Your task to perform on an android device: show emergency info Image 0: 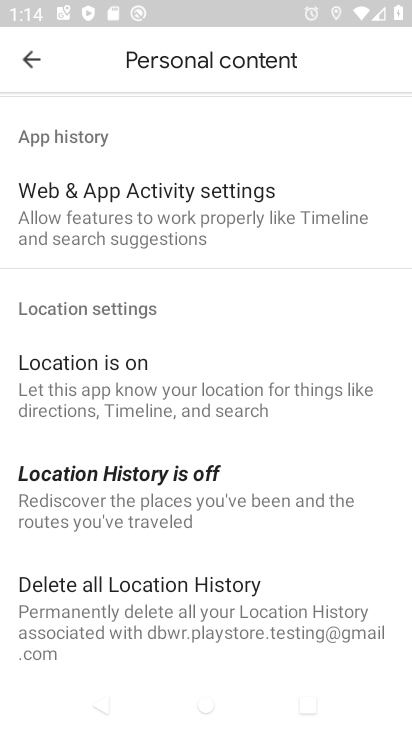
Step 0: press home button
Your task to perform on an android device: show emergency info Image 1: 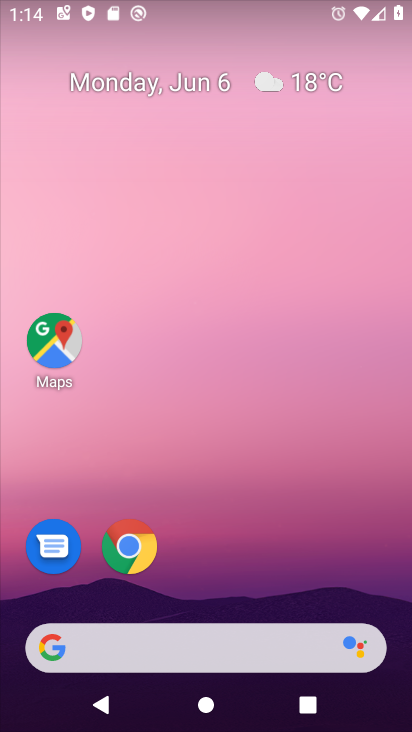
Step 1: click (338, 77)
Your task to perform on an android device: show emergency info Image 2: 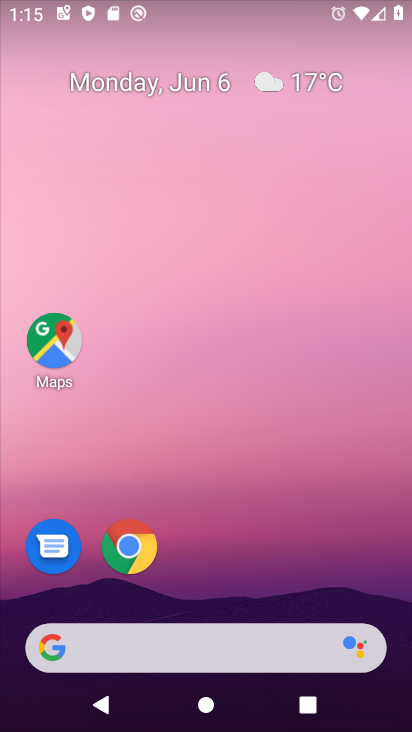
Step 2: drag from (308, 534) to (252, 148)
Your task to perform on an android device: show emergency info Image 3: 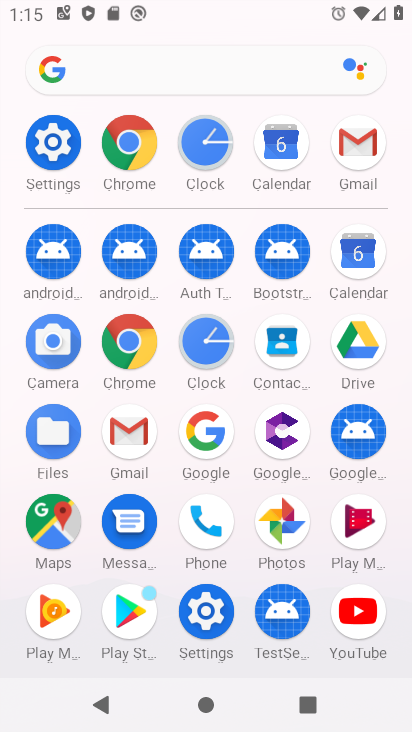
Step 3: click (41, 153)
Your task to perform on an android device: show emergency info Image 4: 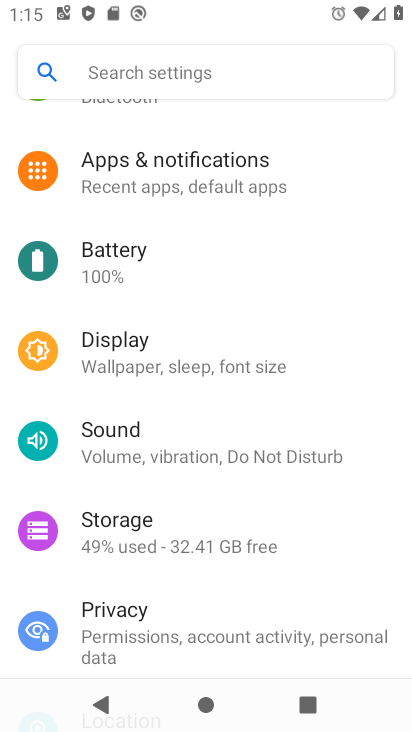
Step 4: drag from (177, 586) to (230, 152)
Your task to perform on an android device: show emergency info Image 5: 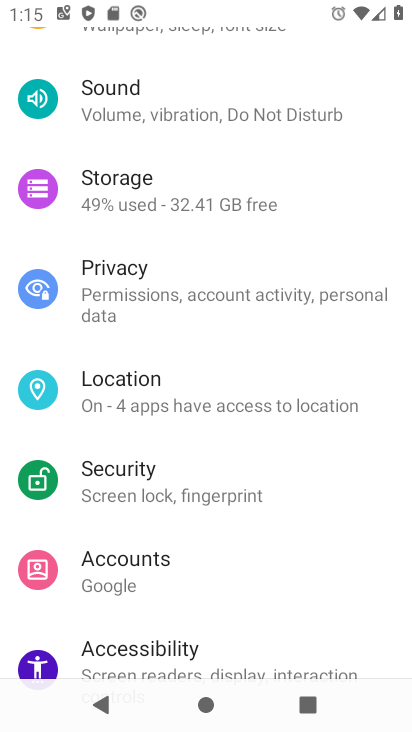
Step 5: drag from (210, 622) to (252, 206)
Your task to perform on an android device: show emergency info Image 6: 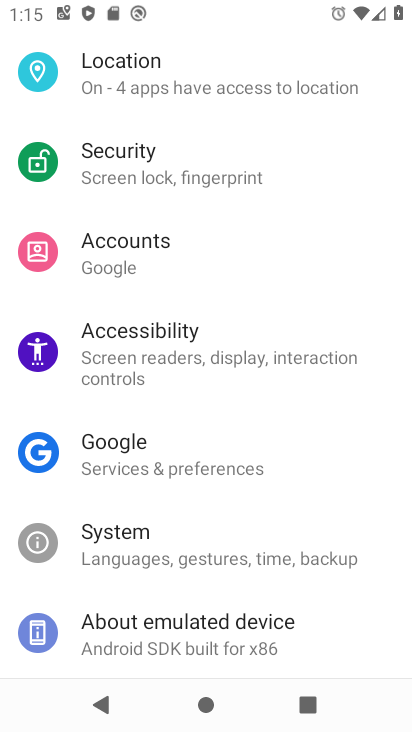
Step 6: click (205, 646)
Your task to perform on an android device: show emergency info Image 7: 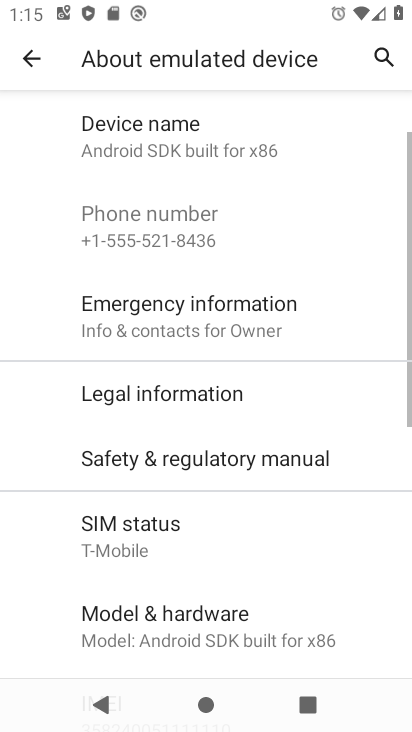
Step 7: click (195, 322)
Your task to perform on an android device: show emergency info Image 8: 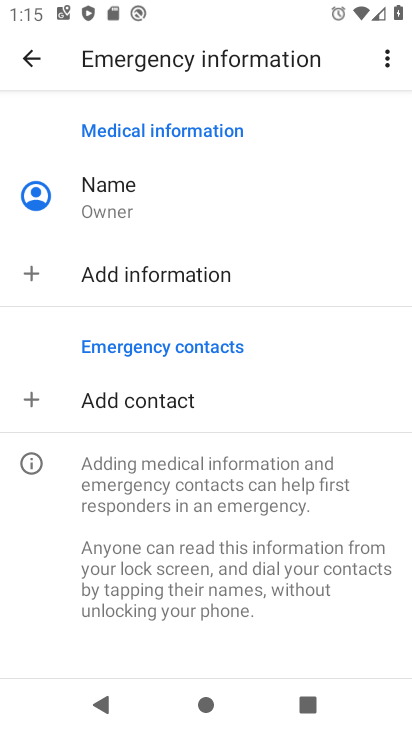
Step 8: drag from (90, 614) to (206, 133)
Your task to perform on an android device: show emergency info Image 9: 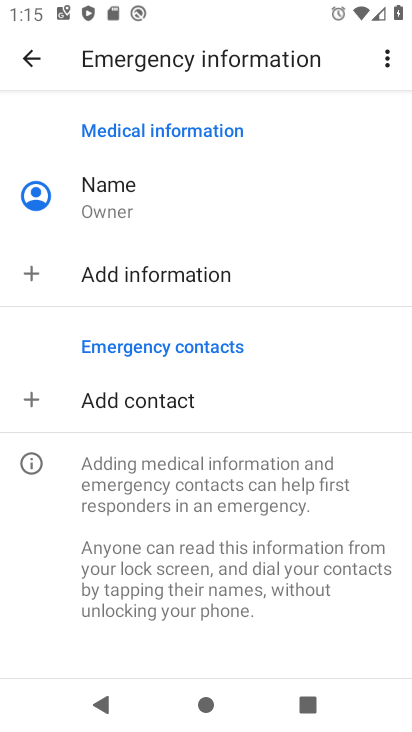
Step 9: click (388, 61)
Your task to perform on an android device: show emergency info Image 10: 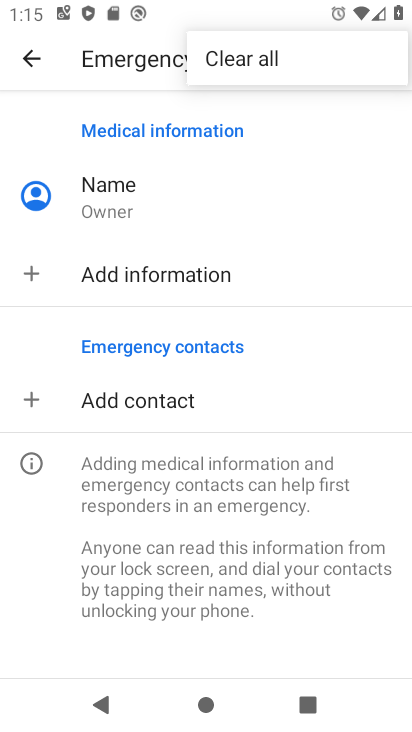
Step 10: drag from (107, 540) to (130, 368)
Your task to perform on an android device: show emergency info Image 11: 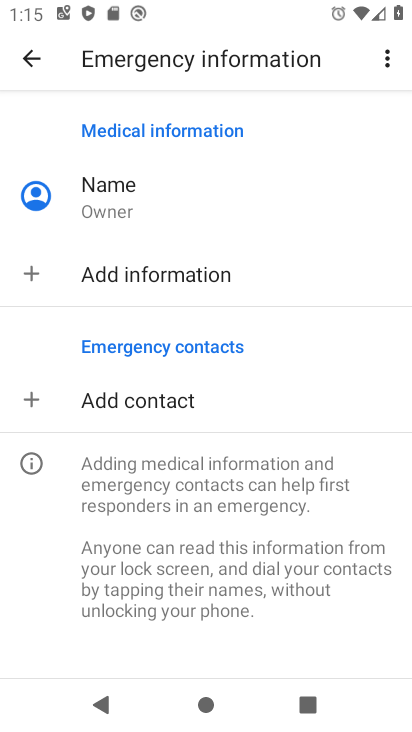
Step 11: click (25, 464)
Your task to perform on an android device: show emergency info Image 12: 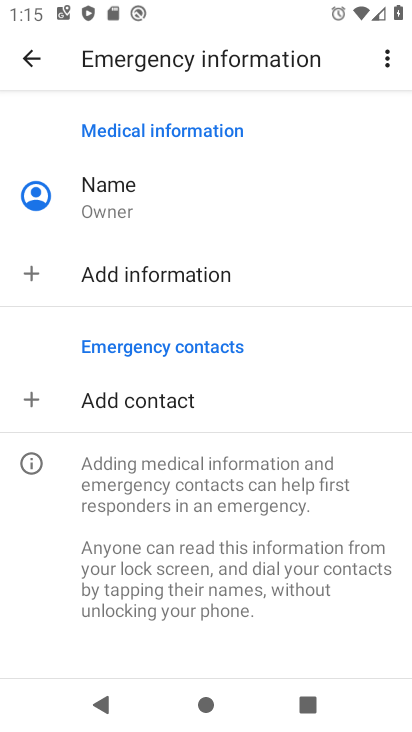
Step 12: task complete